Your task to perform on an android device: Open calendar and show me the fourth week of next month Image 0: 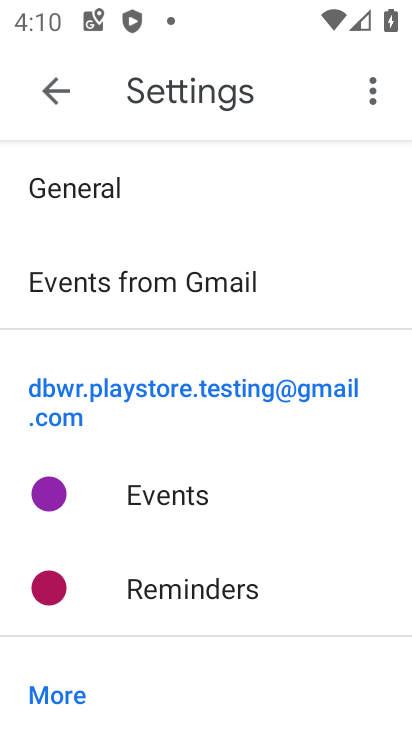
Step 0: press home button
Your task to perform on an android device: Open calendar and show me the fourth week of next month Image 1: 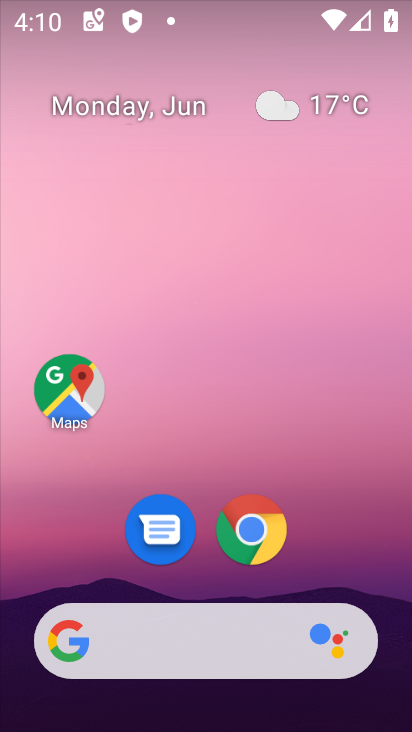
Step 1: drag from (336, 552) to (287, 28)
Your task to perform on an android device: Open calendar and show me the fourth week of next month Image 2: 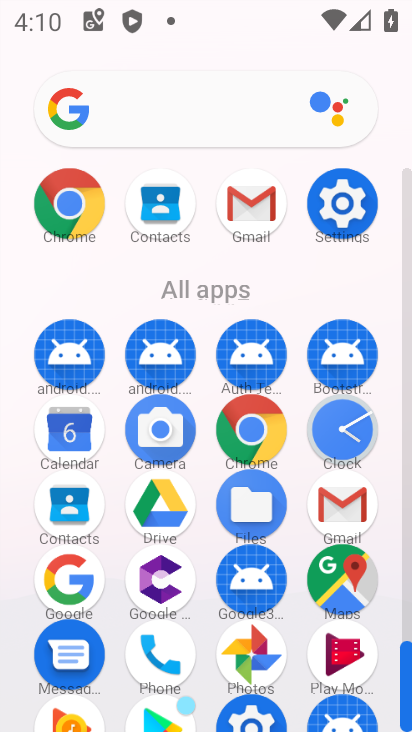
Step 2: click (73, 431)
Your task to perform on an android device: Open calendar and show me the fourth week of next month Image 3: 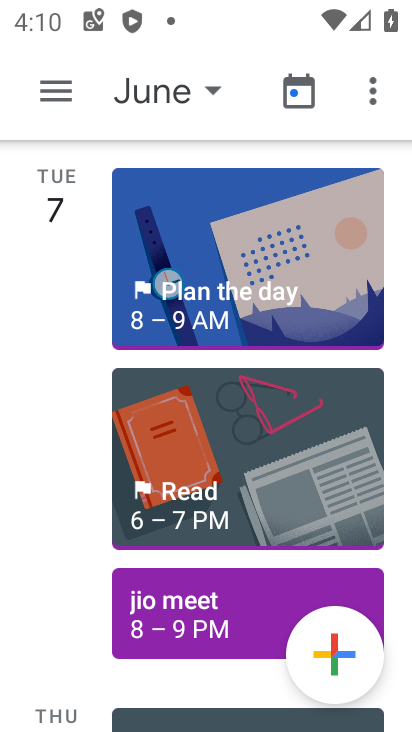
Step 3: click (299, 90)
Your task to perform on an android device: Open calendar and show me the fourth week of next month Image 4: 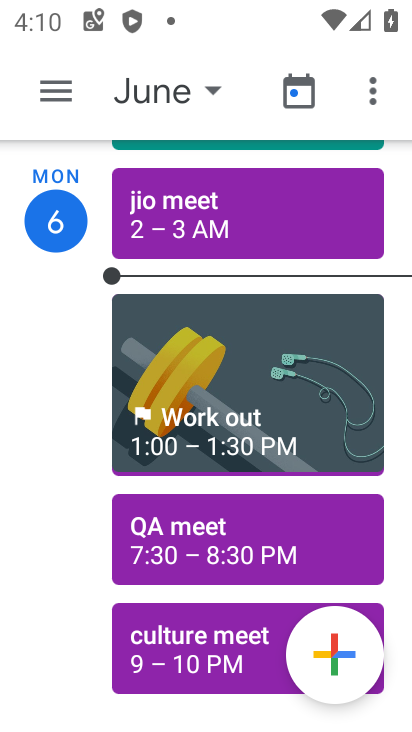
Step 4: click (210, 84)
Your task to perform on an android device: Open calendar and show me the fourth week of next month Image 5: 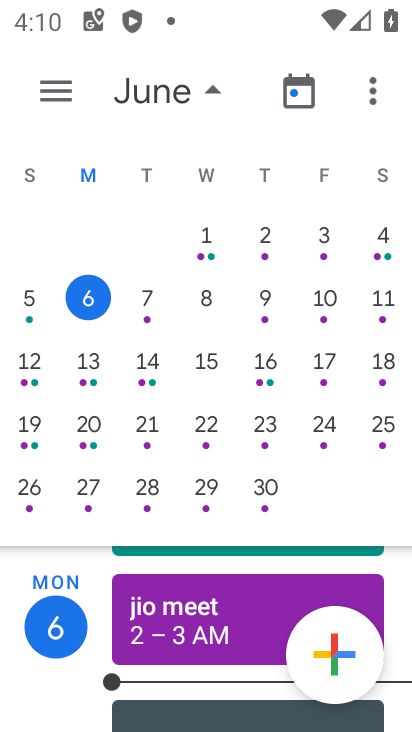
Step 5: drag from (391, 389) to (0, 372)
Your task to perform on an android device: Open calendar and show me the fourth week of next month Image 6: 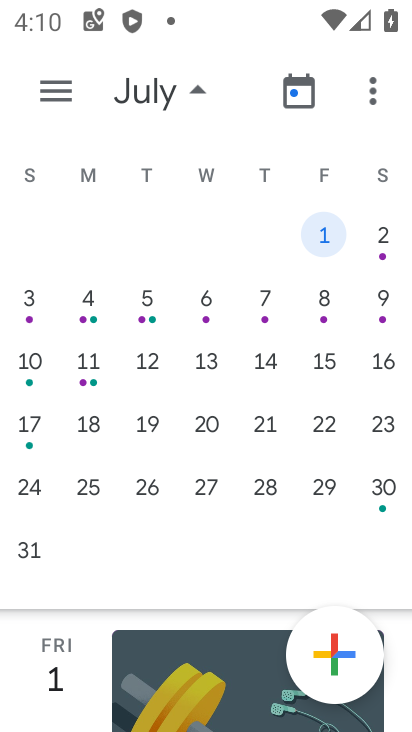
Step 6: click (91, 490)
Your task to perform on an android device: Open calendar and show me the fourth week of next month Image 7: 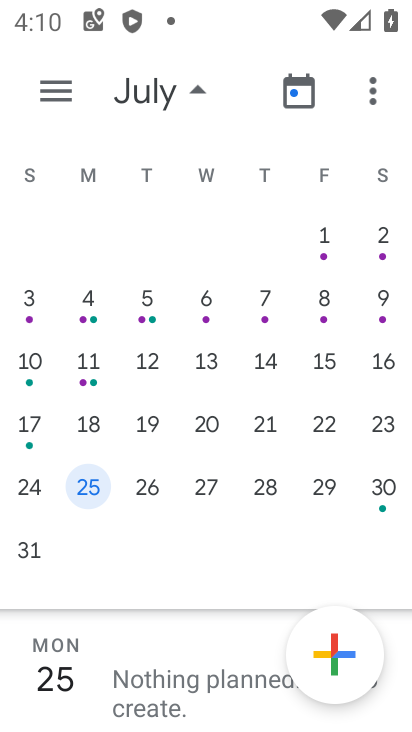
Step 7: click (53, 95)
Your task to perform on an android device: Open calendar and show me the fourth week of next month Image 8: 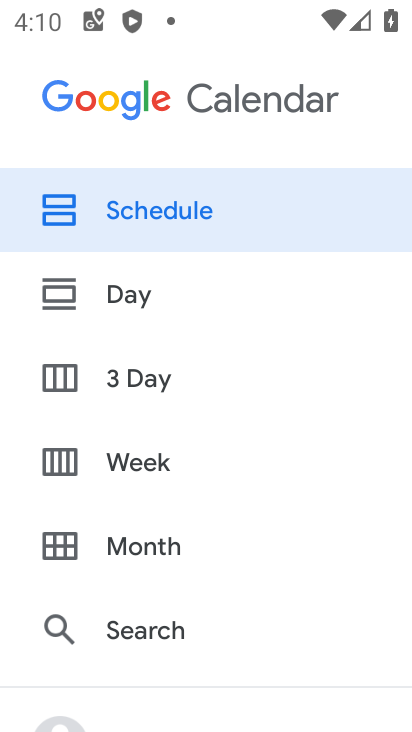
Step 8: click (152, 456)
Your task to perform on an android device: Open calendar and show me the fourth week of next month Image 9: 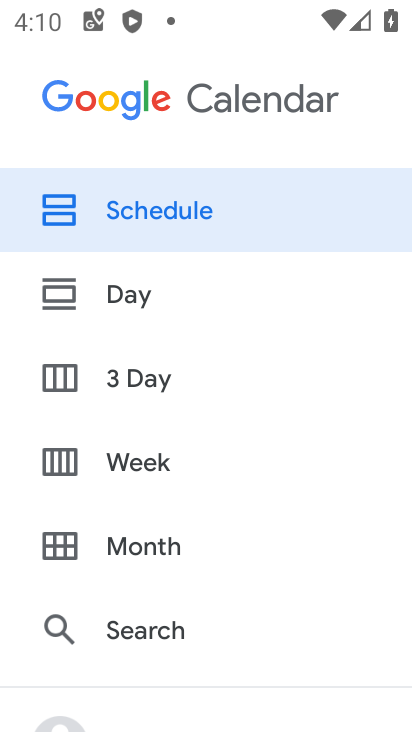
Step 9: click (125, 472)
Your task to perform on an android device: Open calendar and show me the fourth week of next month Image 10: 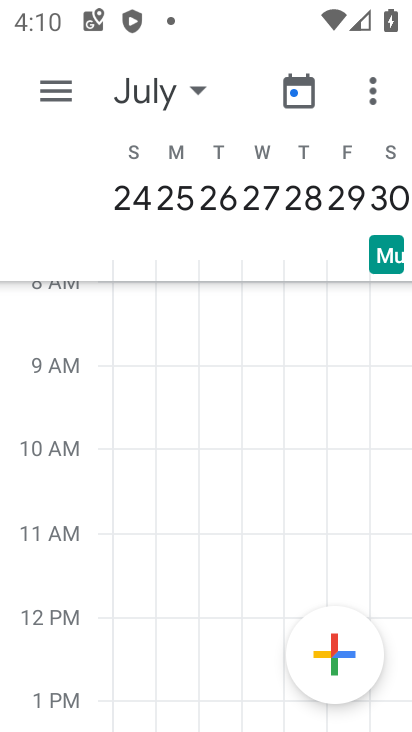
Step 10: task complete